Your task to perform on an android device: turn notification dots on Image 0: 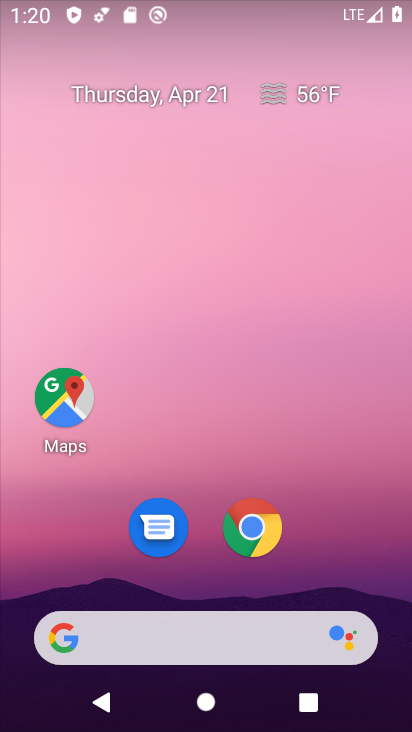
Step 0: drag from (225, 422) to (281, 141)
Your task to perform on an android device: turn notification dots on Image 1: 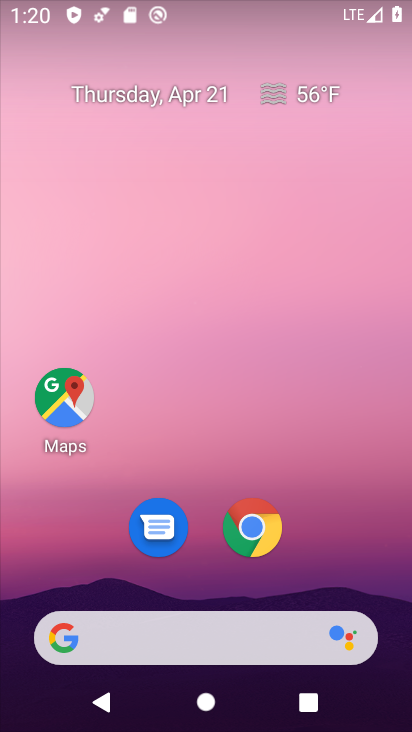
Step 1: drag from (216, 454) to (282, 16)
Your task to perform on an android device: turn notification dots on Image 2: 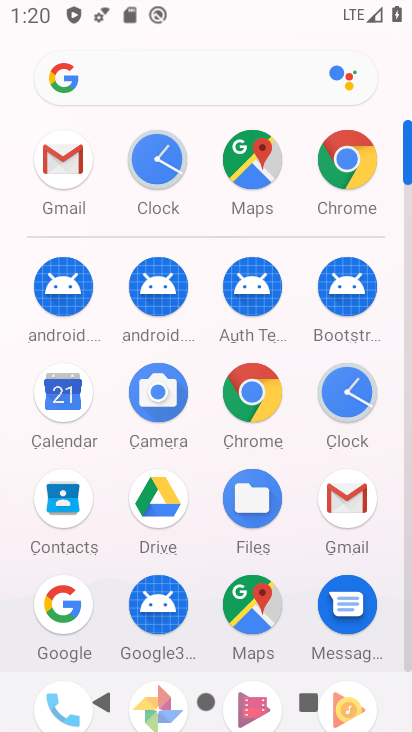
Step 2: drag from (204, 582) to (230, 250)
Your task to perform on an android device: turn notification dots on Image 3: 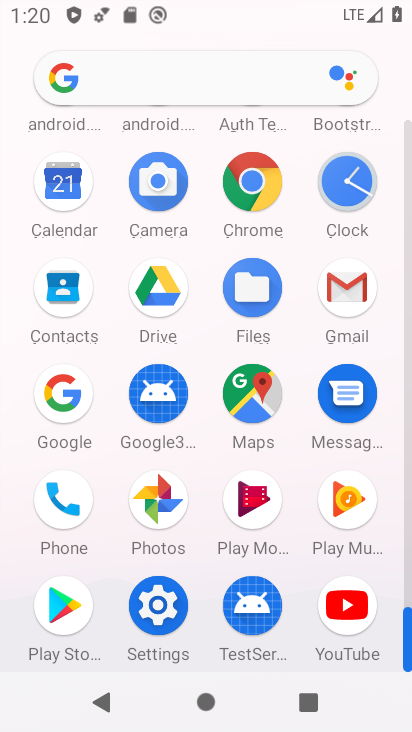
Step 3: click (154, 597)
Your task to perform on an android device: turn notification dots on Image 4: 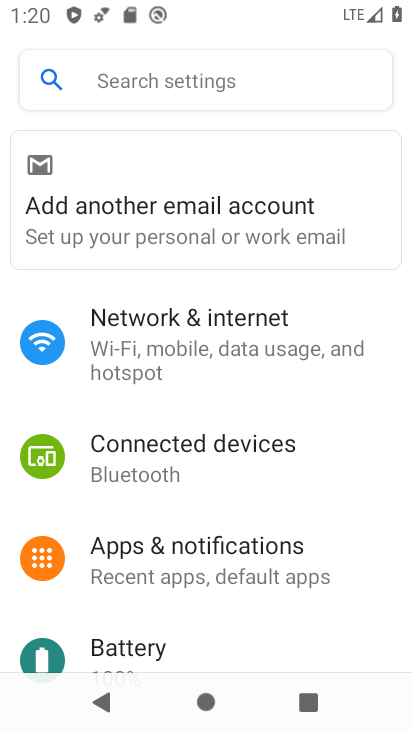
Step 4: click (180, 562)
Your task to perform on an android device: turn notification dots on Image 5: 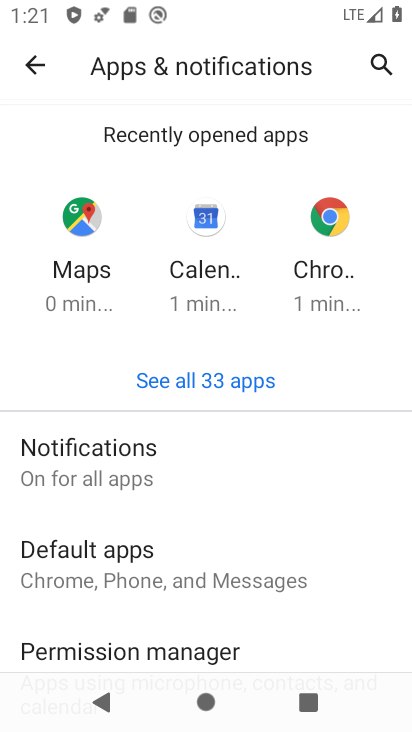
Step 5: drag from (192, 523) to (232, 251)
Your task to perform on an android device: turn notification dots on Image 6: 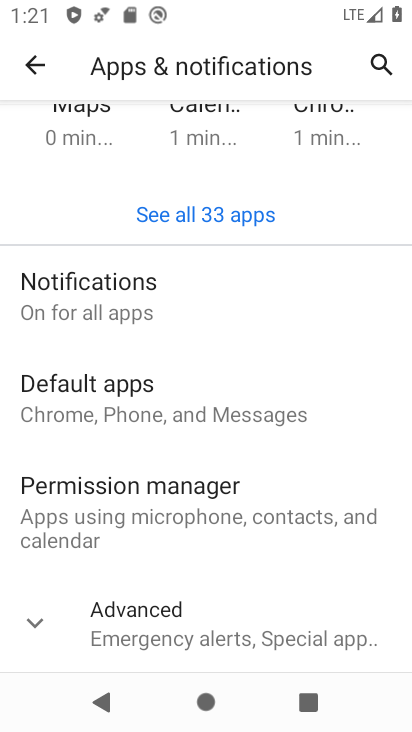
Step 6: click (163, 631)
Your task to perform on an android device: turn notification dots on Image 7: 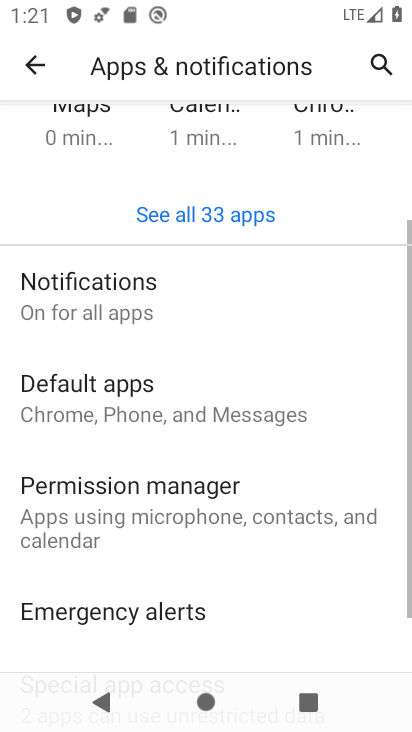
Step 7: drag from (166, 606) to (234, 277)
Your task to perform on an android device: turn notification dots on Image 8: 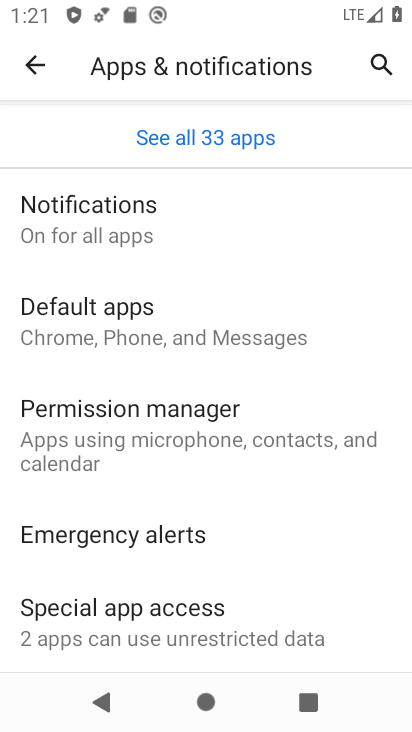
Step 8: drag from (164, 606) to (204, 312)
Your task to perform on an android device: turn notification dots on Image 9: 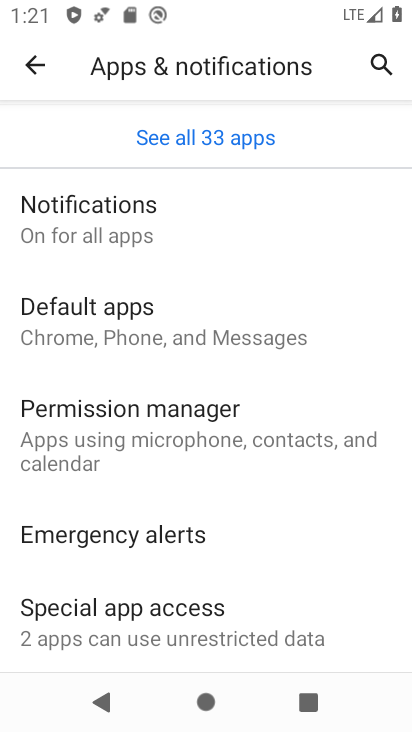
Step 9: drag from (204, 312) to (182, 569)
Your task to perform on an android device: turn notification dots on Image 10: 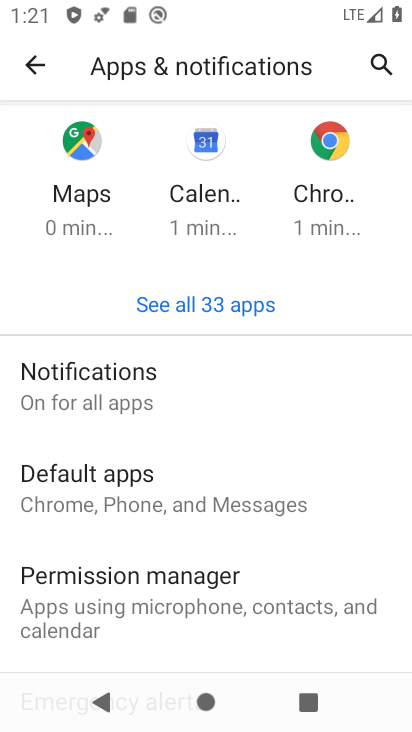
Step 10: click (112, 400)
Your task to perform on an android device: turn notification dots on Image 11: 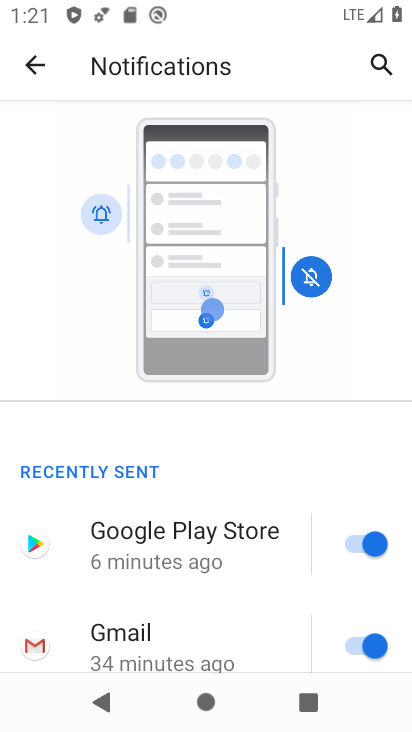
Step 11: drag from (183, 622) to (257, 214)
Your task to perform on an android device: turn notification dots on Image 12: 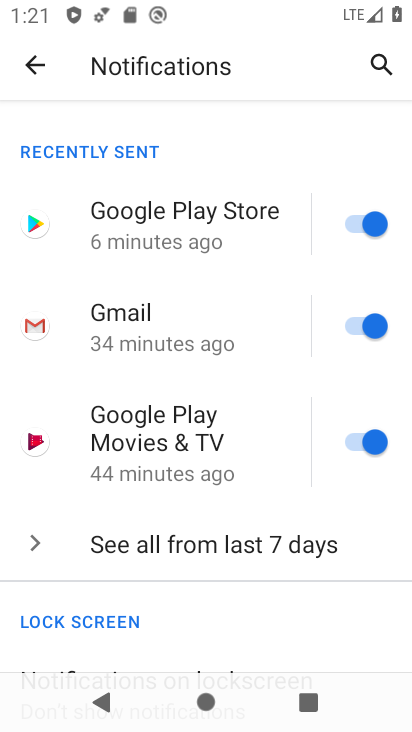
Step 12: drag from (193, 598) to (258, 194)
Your task to perform on an android device: turn notification dots on Image 13: 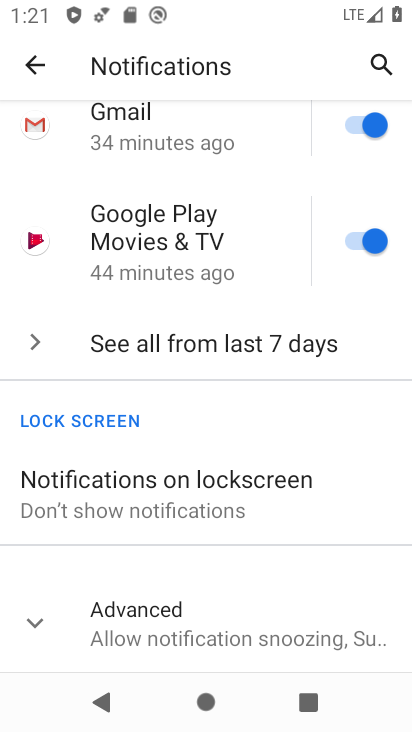
Step 13: click (144, 617)
Your task to perform on an android device: turn notification dots on Image 14: 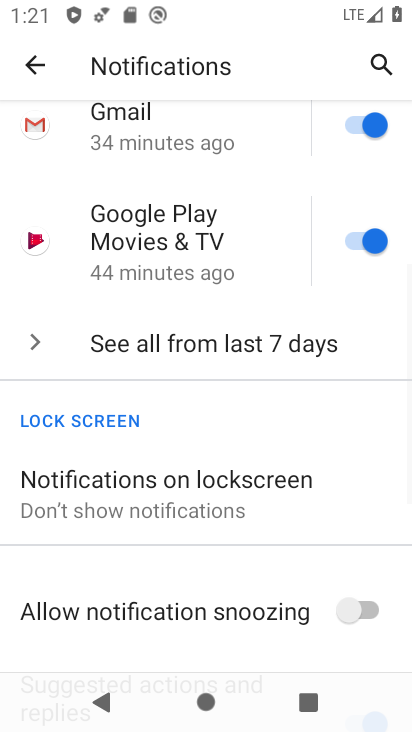
Step 14: drag from (209, 521) to (270, 212)
Your task to perform on an android device: turn notification dots on Image 15: 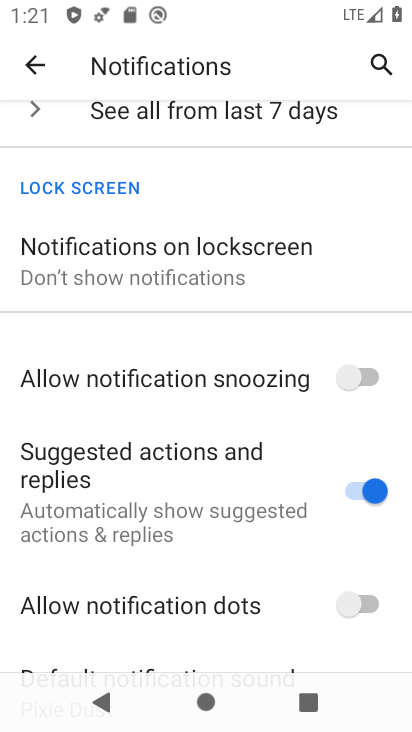
Step 15: click (364, 605)
Your task to perform on an android device: turn notification dots on Image 16: 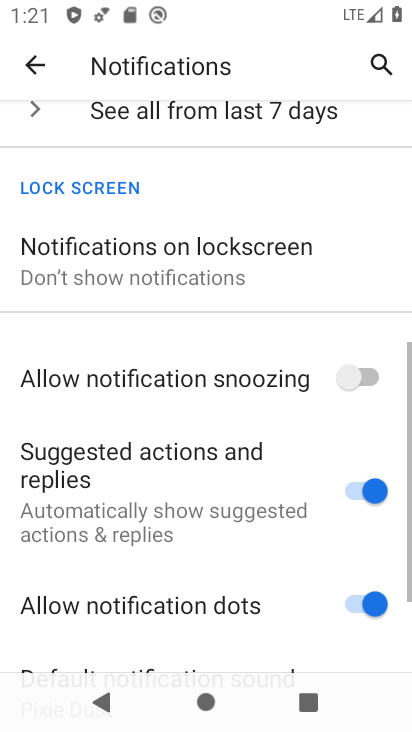
Step 16: task complete